Your task to perform on an android device: Open the calendar and show me this week's events? Image 0: 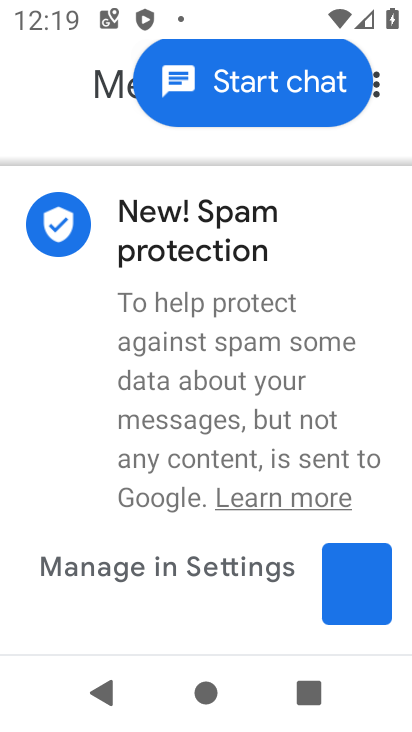
Step 0: press back button
Your task to perform on an android device: Open the calendar and show me this week's events? Image 1: 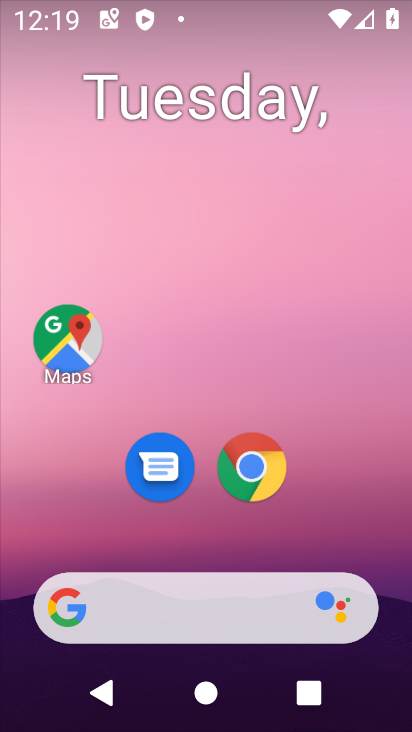
Step 1: drag from (342, 552) to (236, 12)
Your task to perform on an android device: Open the calendar and show me this week's events? Image 2: 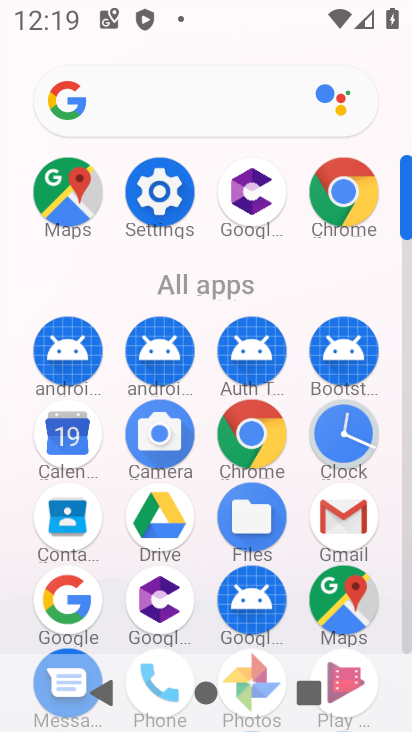
Step 2: drag from (21, 569) to (21, 274)
Your task to perform on an android device: Open the calendar and show me this week's events? Image 3: 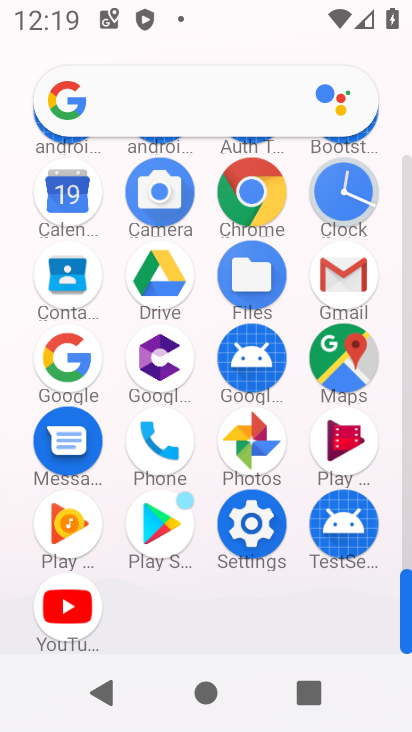
Step 3: click (68, 198)
Your task to perform on an android device: Open the calendar and show me this week's events? Image 4: 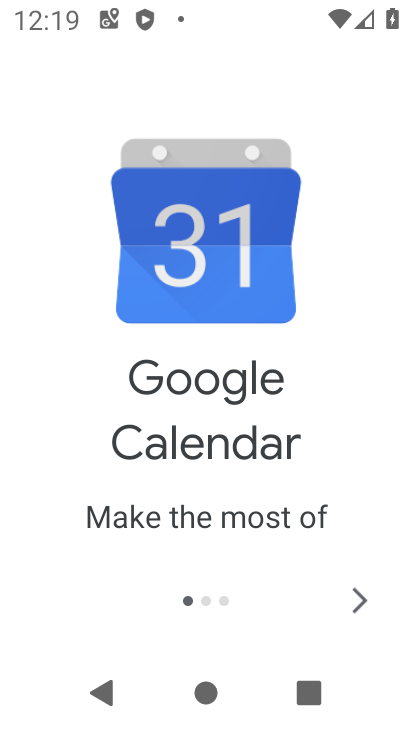
Step 4: click (364, 594)
Your task to perform on an android device: Open the calendar and show me this week's events? Image 5: 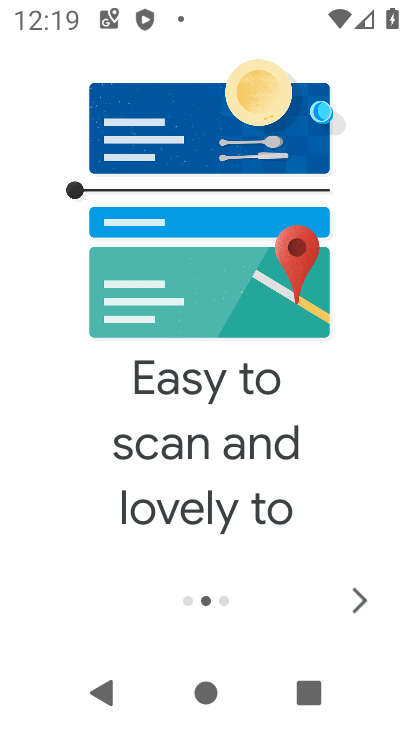
Step 5: click (362, 596)
Your task to perform on an android device: Open the calendar and show me this week's events? Image 6: 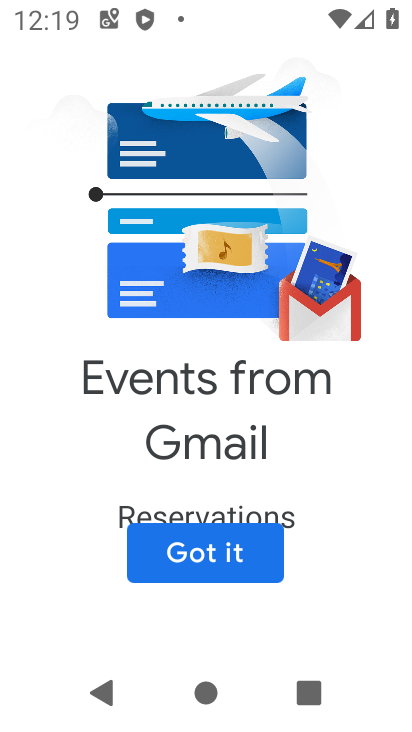
Step 6: click (249, 547)
Your task to perform on an android device: Open the calendar and show me this week's events? Image 7: 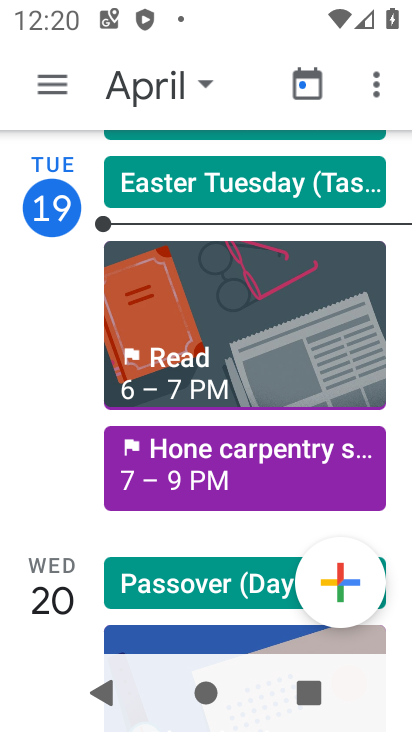
Step 7: click (59, 83)
Your task to perform on an android device: Open the calendar and show me this week's events? Image 8: 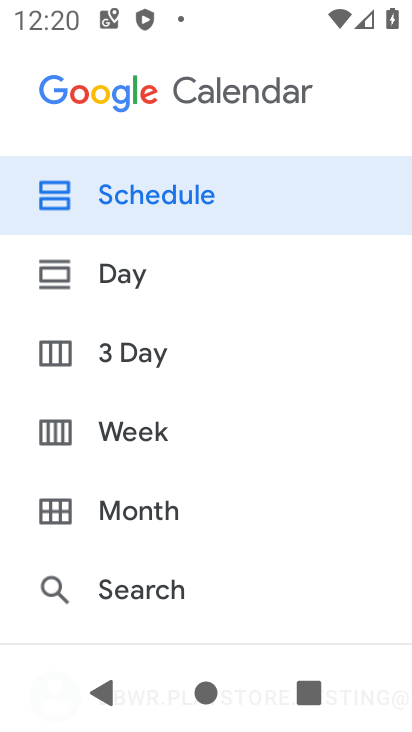
Step 8: click (165, 429)
Your task to perform on an android device: Open the calendar and show me this week's events? Image 9: 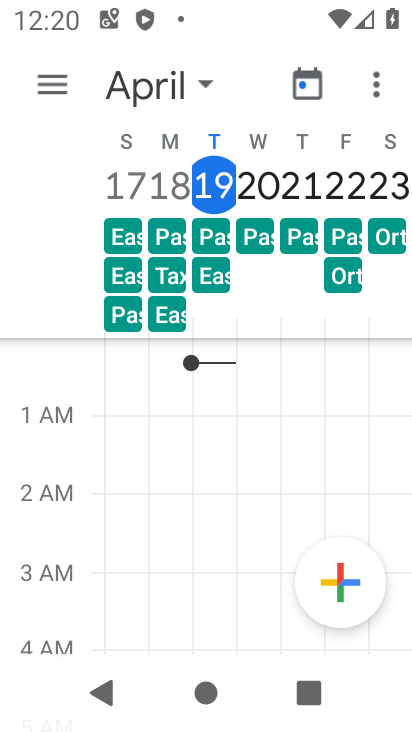
Step 9: click (64, 79)
Your task to perform on an android device: Open the calendar and show me this week's events? Image 10: 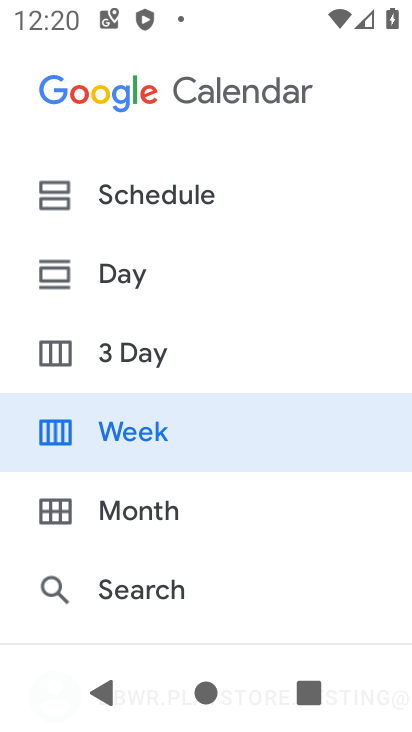
Step 10: drag from (225, 465) to (181, 121)
Your task to perform on an android device: Open the calendar and show me this week's events? Image 11: 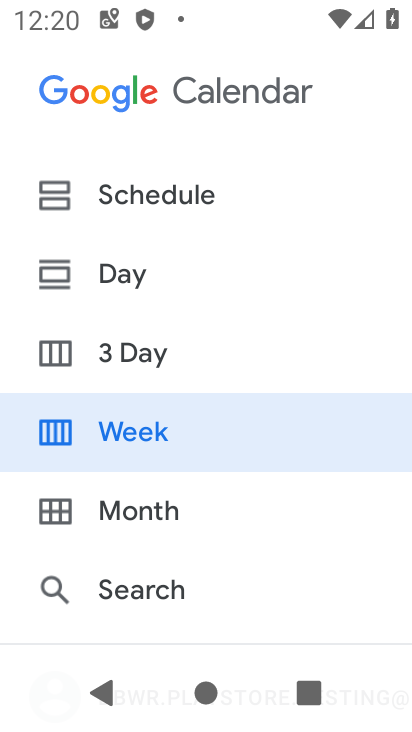
Step 11: drag from (209, 516) to (200, 152)
Your task to perform on an android device: Open the calendar and show me this week's events? Image 12: 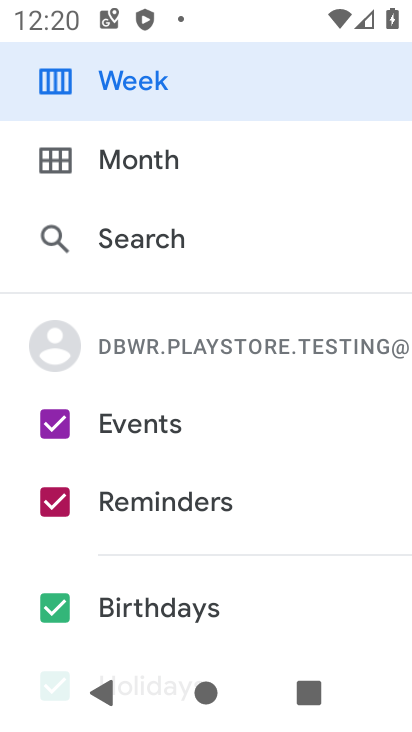
Step 12: click (53, 500)
Your task to perform on an android device: Open the calendar and show me this week's events? Image 13: 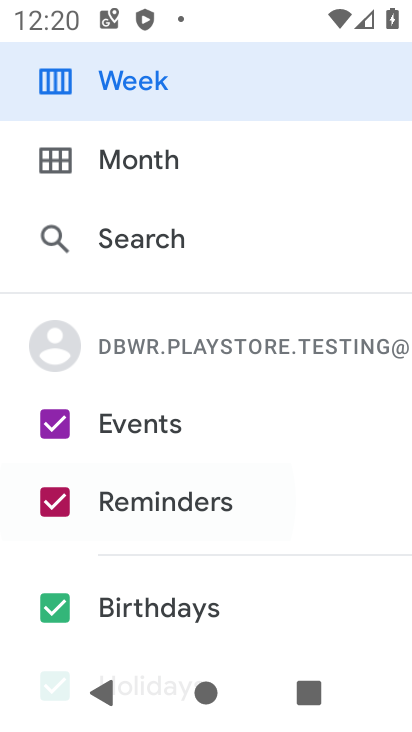
Step 13: drag from (276, 586) to (305, 253)
Your task to perform on an android device: Open the calendar and show me this week's events? Image 14: 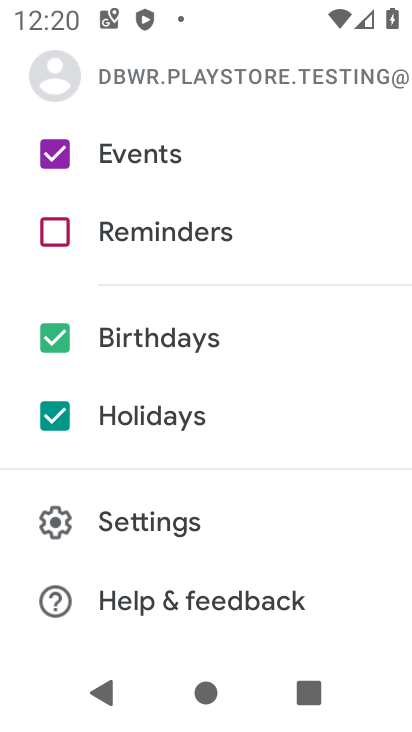
Step 14: click (59, 418)
Your task to perform on an android device: Open the calendar and show me this week's events? Image 15: 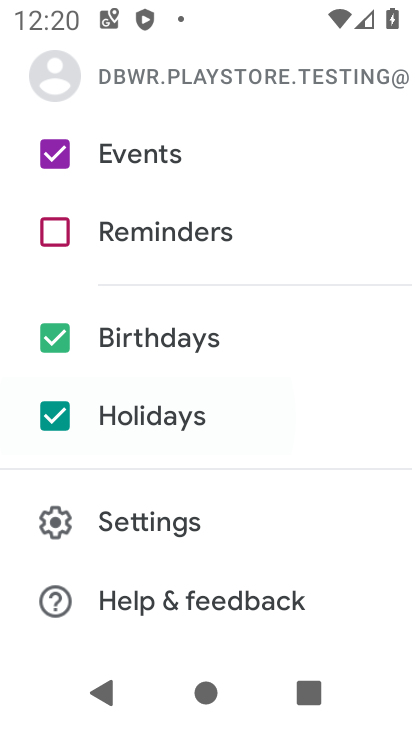
Step 15: click (47, 341)
Your task to perform on an android device: Open the calendar and show me this week's events? Image 16: 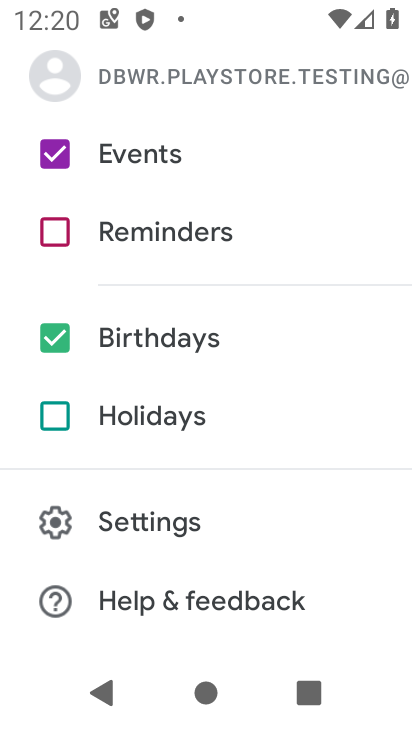
Step 16: click (48, 338)
Your task to perform on an android device: Open the calendar and show me this week's events? Image 17: 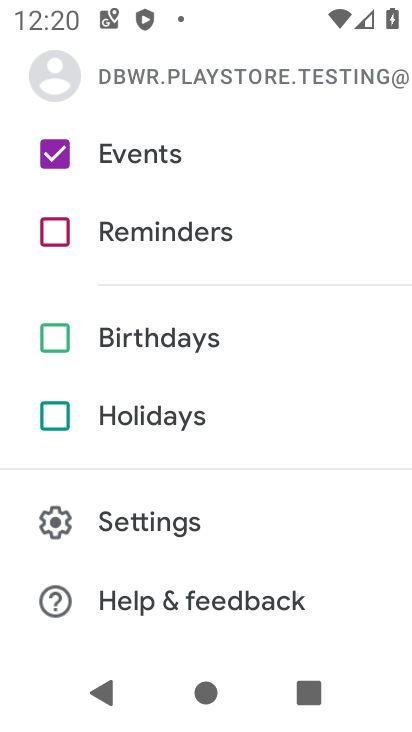
Step 17: task complete